Your task to perform on an android device: check storage Image 0: 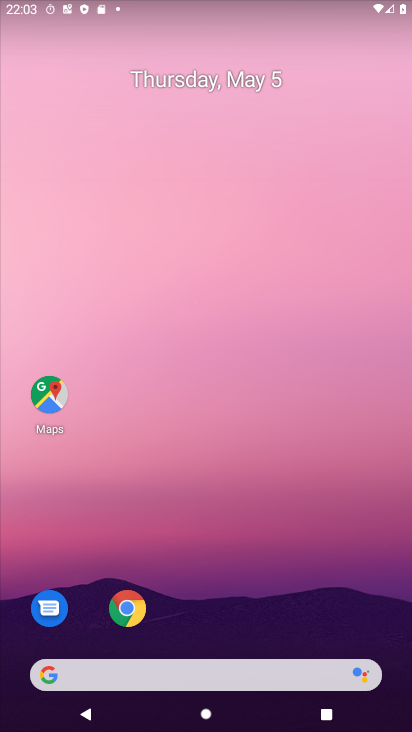
Step 0: drag from (224, 630) to (274, 11)
Your task to perform on an android device: check storage Image 1: 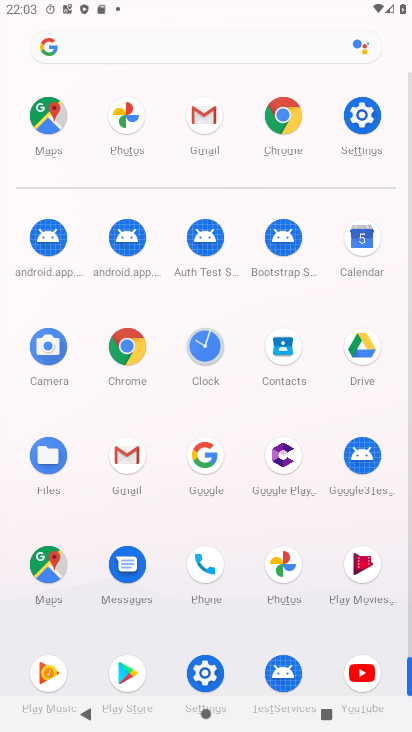
Step 1: click (356, 115)
Your task to perform on an android device: check storage Image 2: 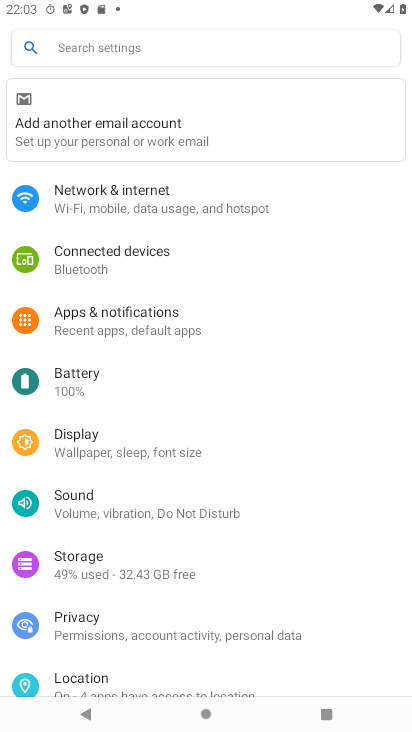
Step 2: click (113, 575)
Your task to perform on an android device: check storage Image 3: 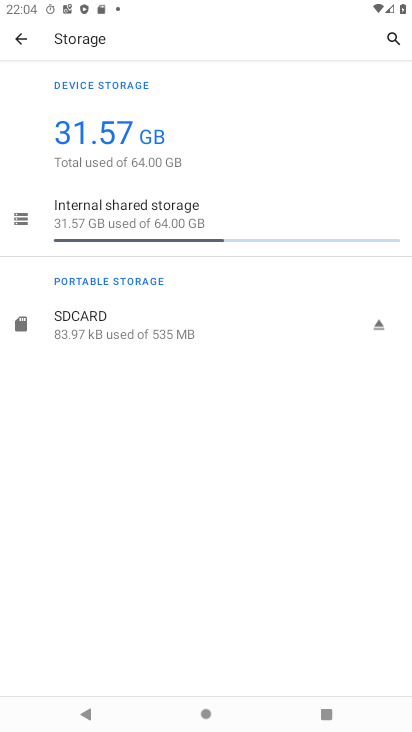
Step 3: task complete